Your task to perform on an android device: Search for hotels in San Francisco Image 0: 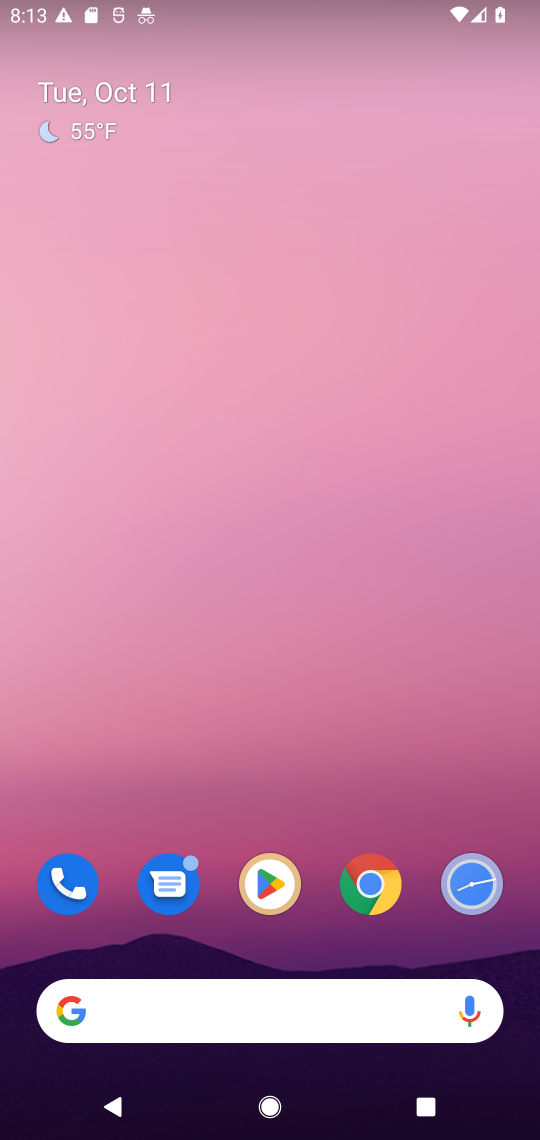
Step 0: click (274, 227)
Your task to perform on an android device: Search for hotels in San Francisco Image 1: 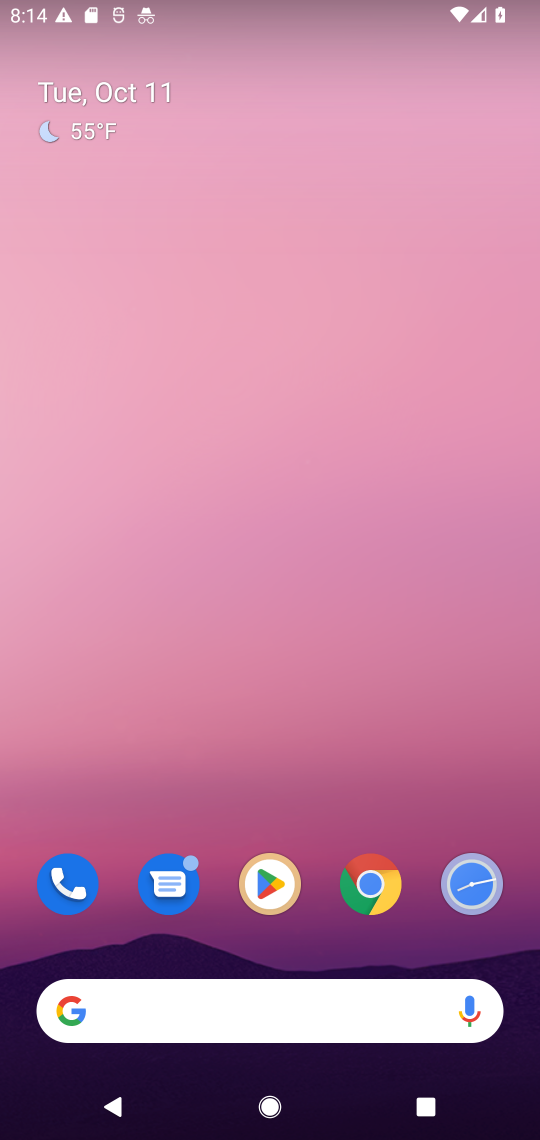
Step 1: click (375, 891)
Your task to perform on an android device: Search for hotels in San Francisco Image 2: 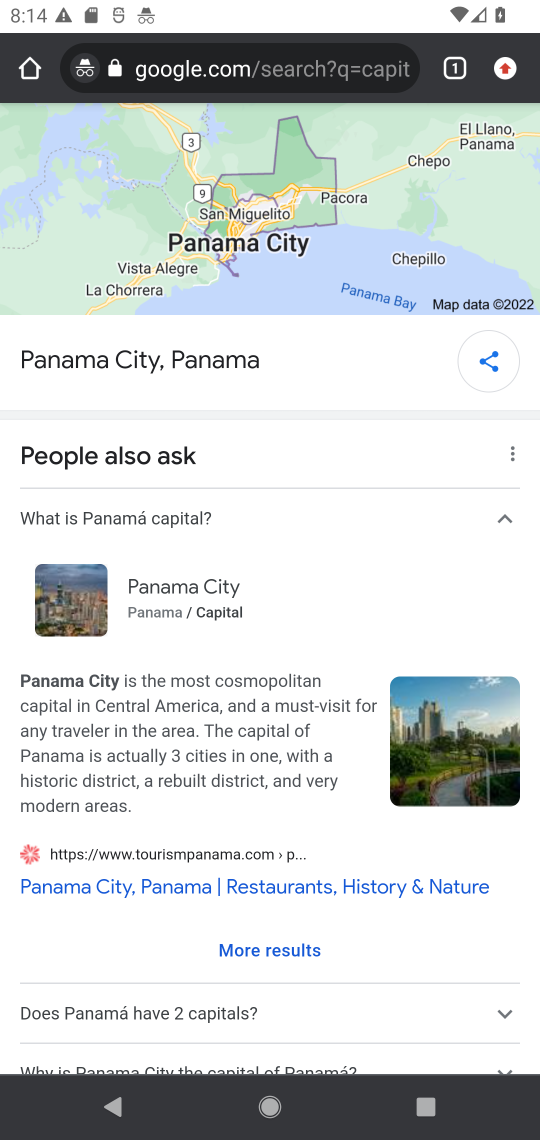
Step 2: drag from (510, 77) to (309, 220)
Your task to perform on an android device: Search for hotels in San Francisco Image 3: 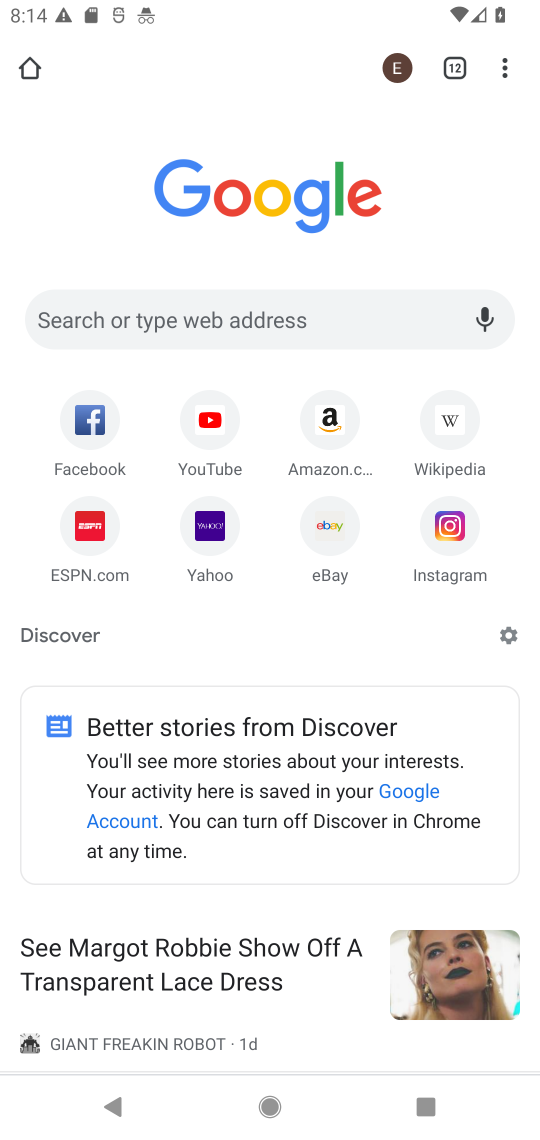
Step 3: click (237, 321)
Your task to perform on an android device: Search for hotels in San Francisco Image 4: 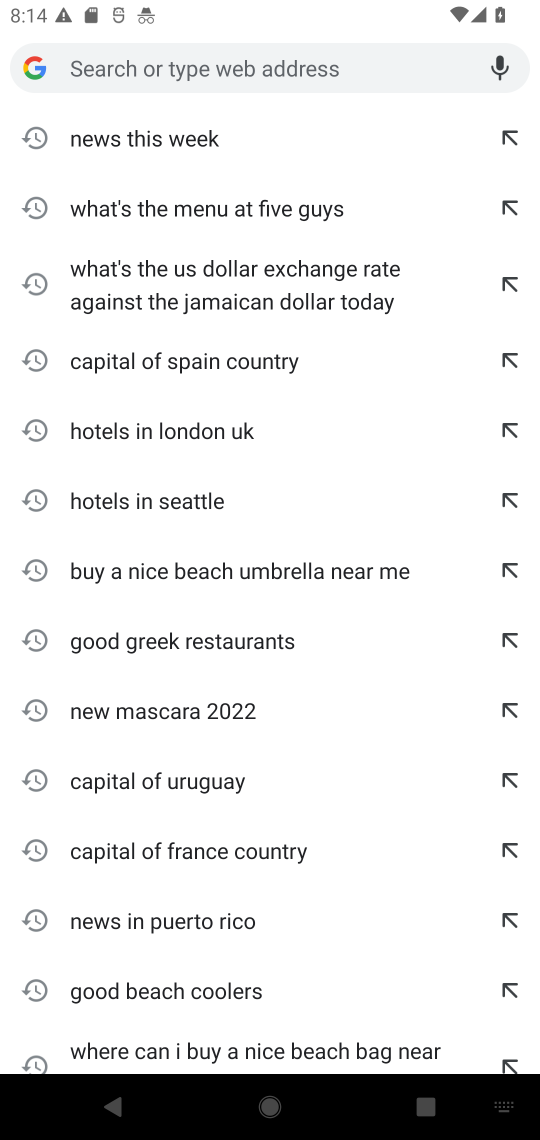
Step 4: type "hotels in San Francisco"
Your task to perform on an android device: Search for hotels in San Francisco Image 5: 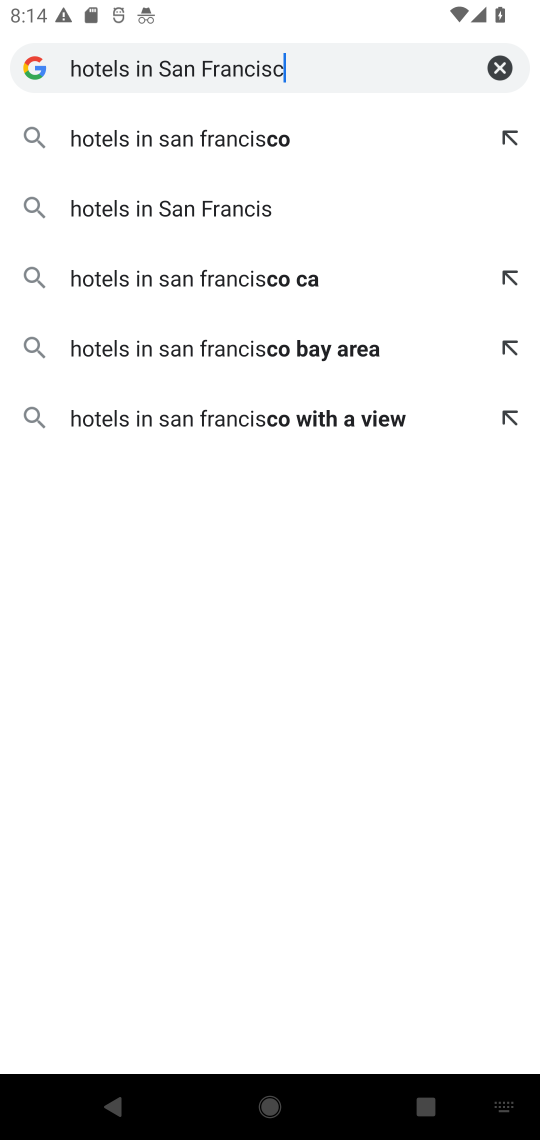
Step 5: type ""
Your task to perform on an android device: Search for hotels in San Francisco Image 6: 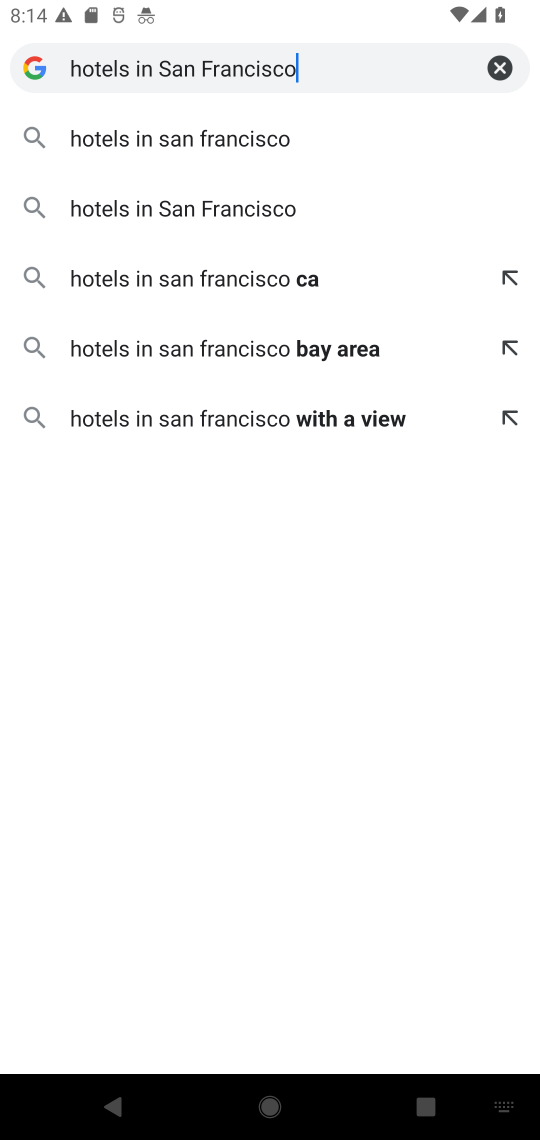
Step 6: click (238, 134)
Your task to perform on an android device: Search for hotels in San Francisco Image 7: 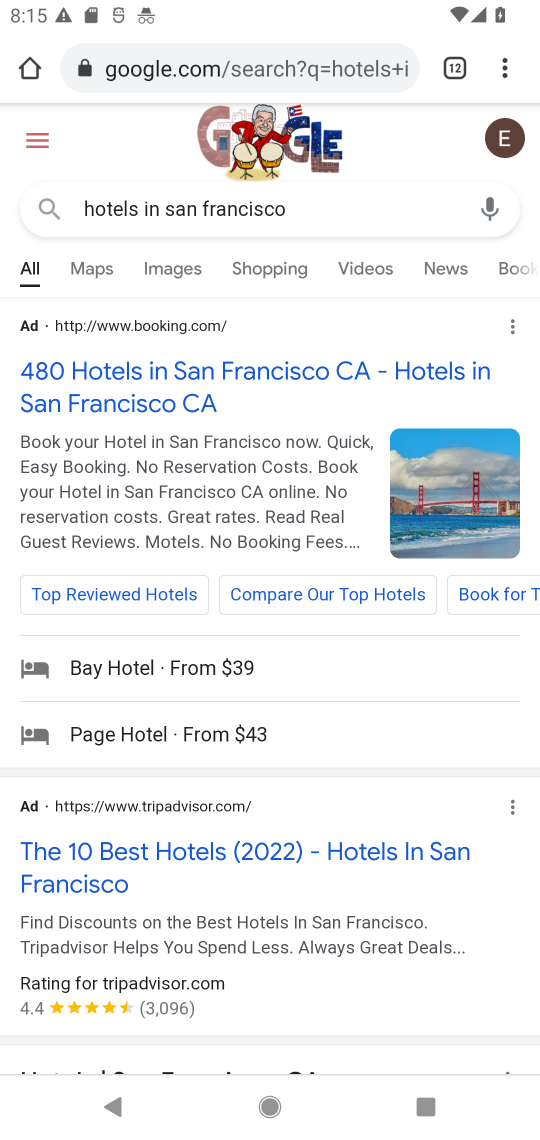
Step 7: click (302, 366)
Your task to perform on an android device: Search for hotels in San Francisco Image 8: 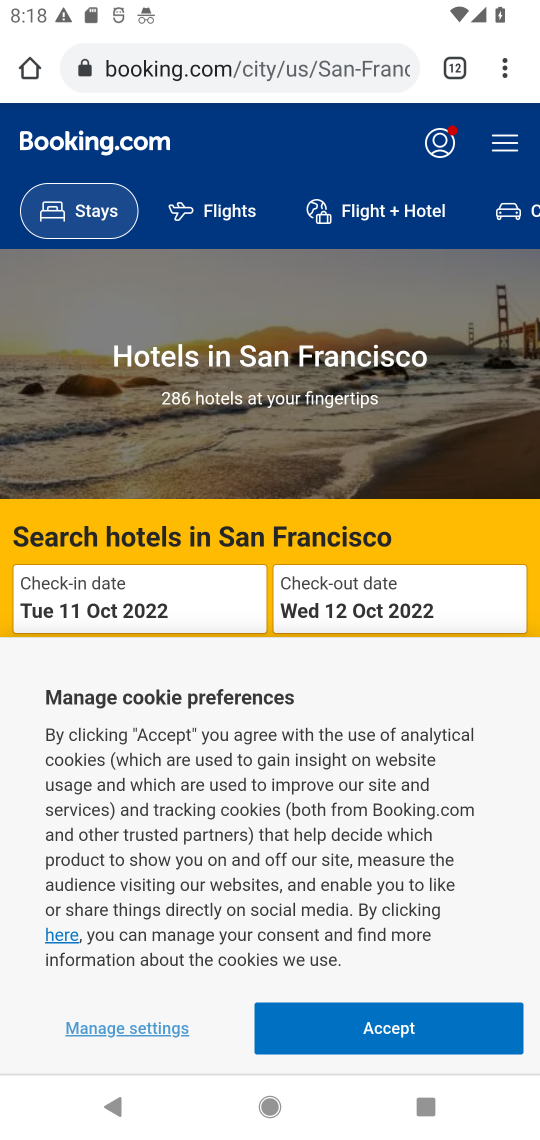
Step 8: task complete